Your task to perform on an android device: Open eBay Image 0: 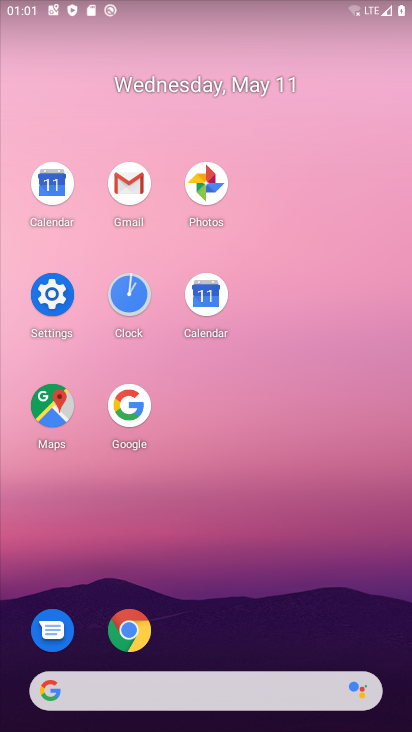
Step 0: click (45, 292)
Your task to perform on an android device: Open eBay Image 1: 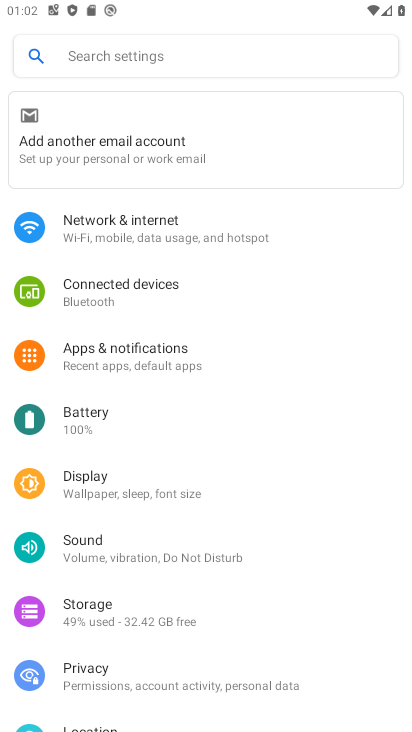
Step 1: press home button
Your task to perform on an android device: Open eBay Image 2: 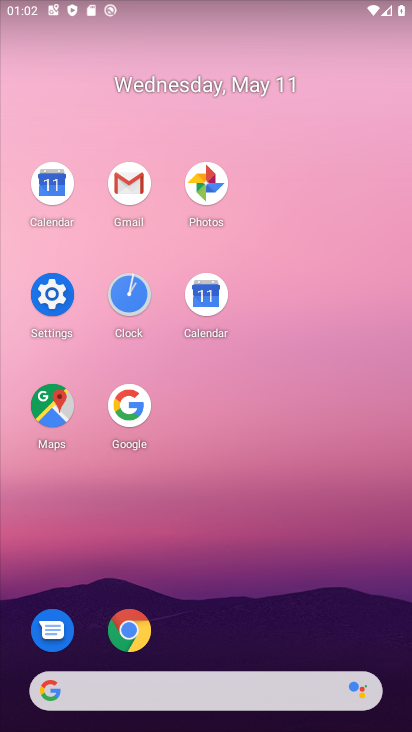
Step 2: click (130, 630)
Your task to perform on an android device: Open eBay Image 3: 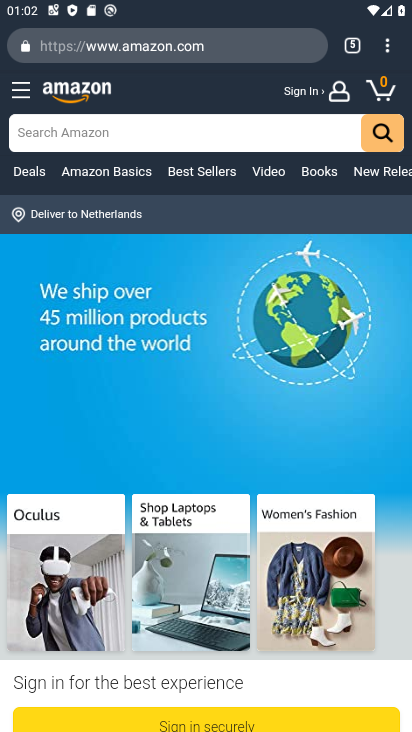
Step 3: click (358, 39)
Your task to perform on an android device: Open eBay Image 4: 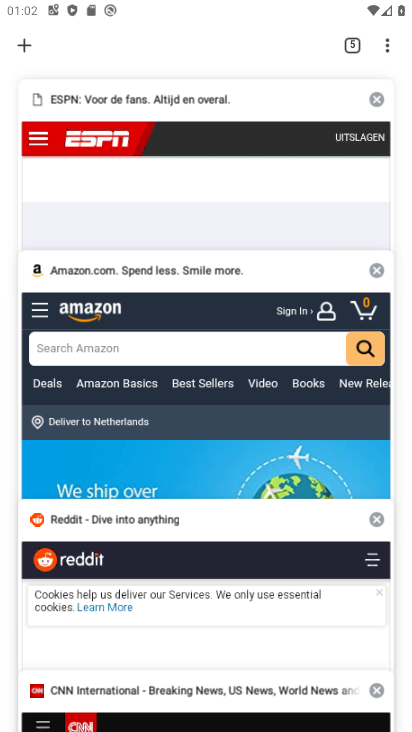
Step 4: drag from (200, 184) to (216, 621)
Your task to perform on an android device: Open eBay Image 5: 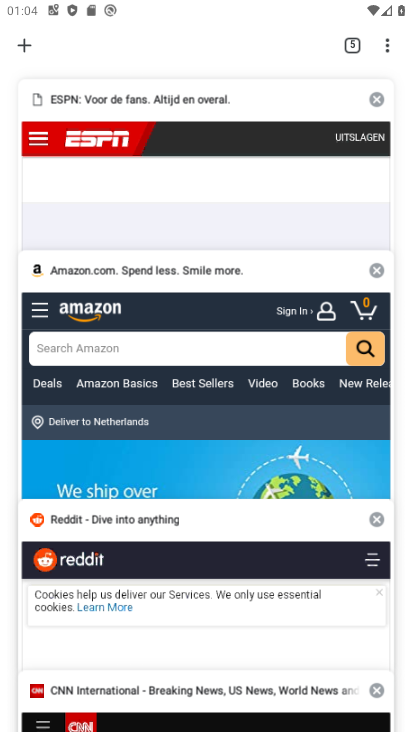
Step 5: click (26, 44)
Your task to perform on an android device: Open eBay Image 6: 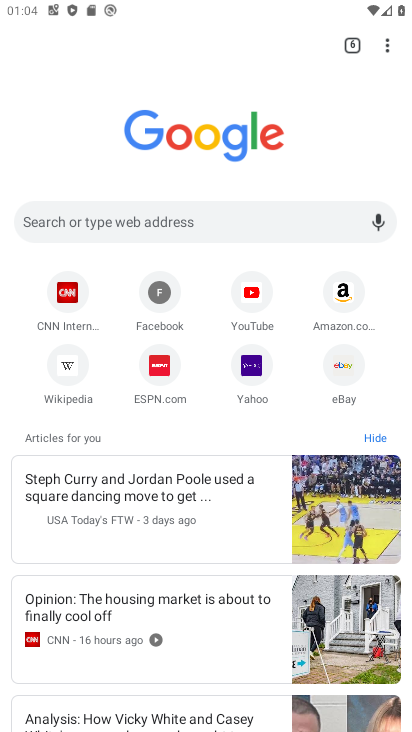
Step 6: click (348, 369)
Your task to perform on an android device: Open eBay Image 7: 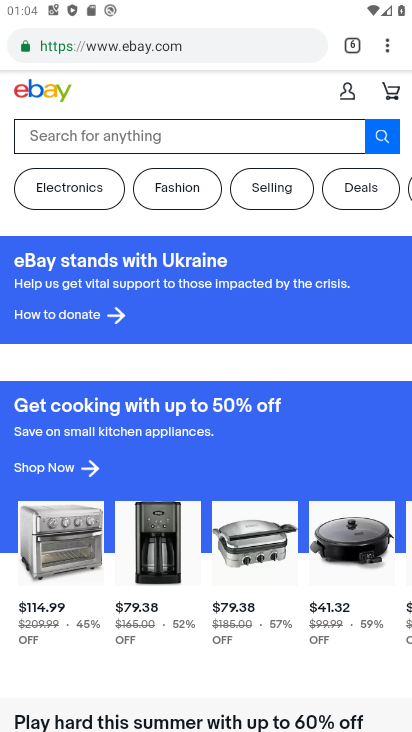
Step 7: task complete